Your task to perform on an android device: find snoozed emails in the gmail app Image 0: 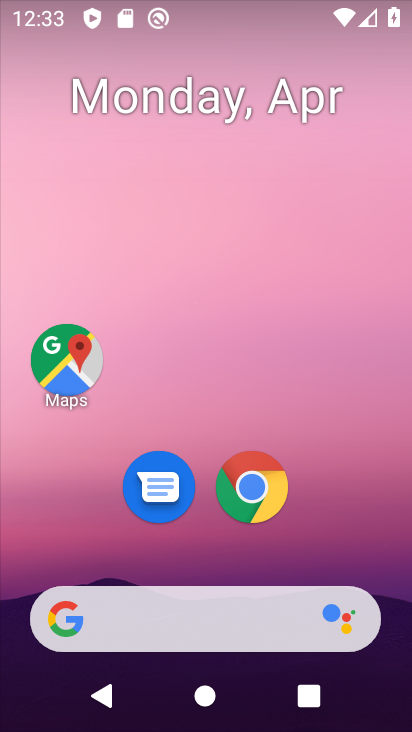
Step 0: drag from (400, 578) to (346, 84)
Your task to perform on an android device: find snoozed emails in the gmail app Image 1: 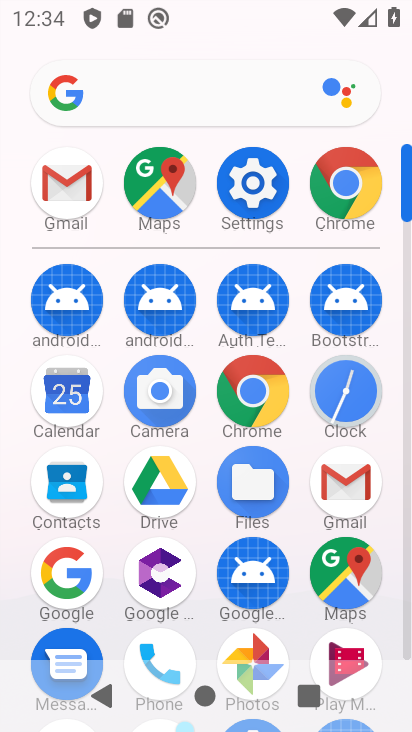
Step 1: click (342, 457)
Your task to perform on an android device: find snoozed emails in the gmail app Image 2: 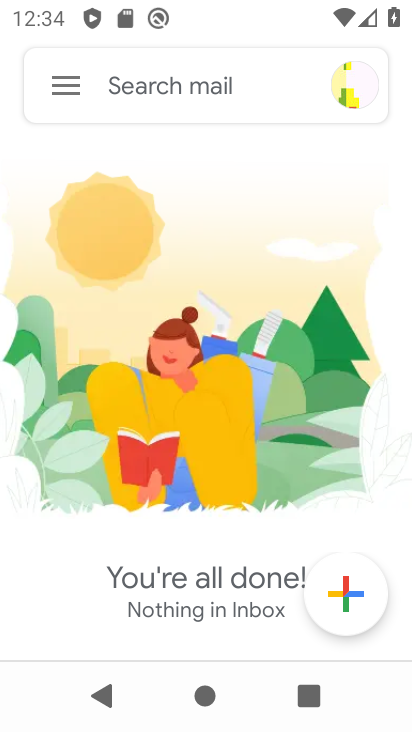
Step 2: click (76, 82)
Your task to perform on an android device: find snoozed emails in the gmail app Image 3: 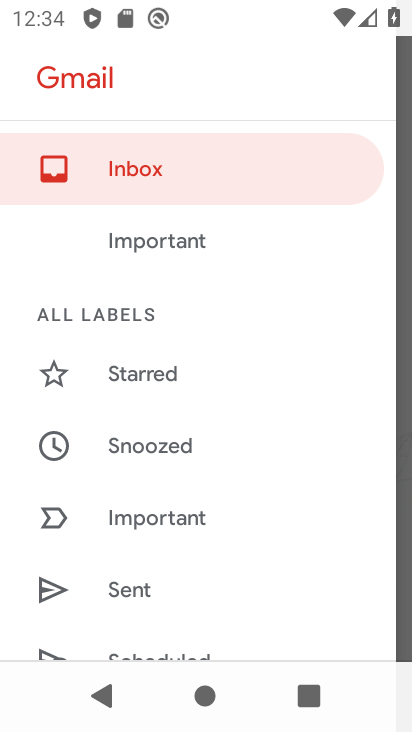
Step 3: drag from (73, 596) to (179, 351)
Your task to perform on an android device: find snoozed emails in the gmail app Image 4: 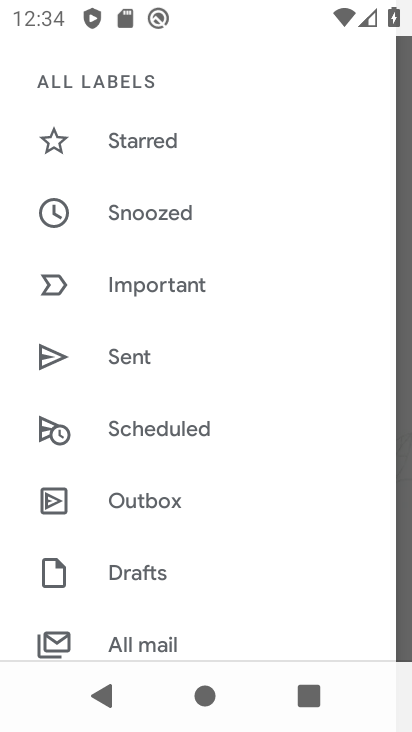
Step 4: click (242, 218)
Your task to perform on an android device: find snoozed emails in the gmail app Image 5: 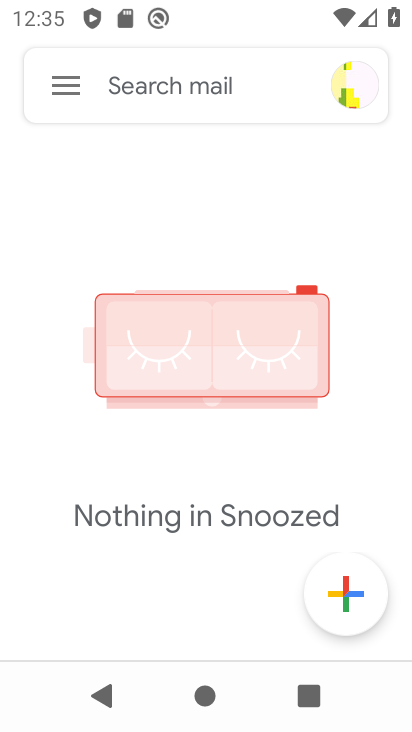
Step 5: task complete